Your task to perform on an android device: Open the web browser Image 0: 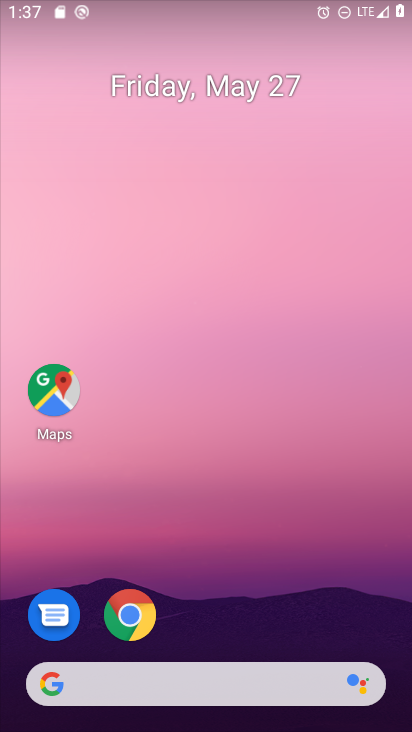
Step 0: drag from (200, 667) to (222, 23)
Your task to perform on an android device: Open the web browser Image 1: 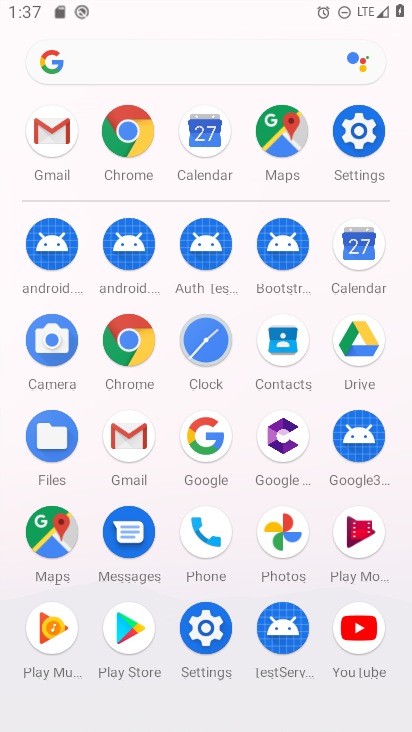
Step 1: click (140, 351)
Your task to perform on an android device: Open the web browser Image 2: 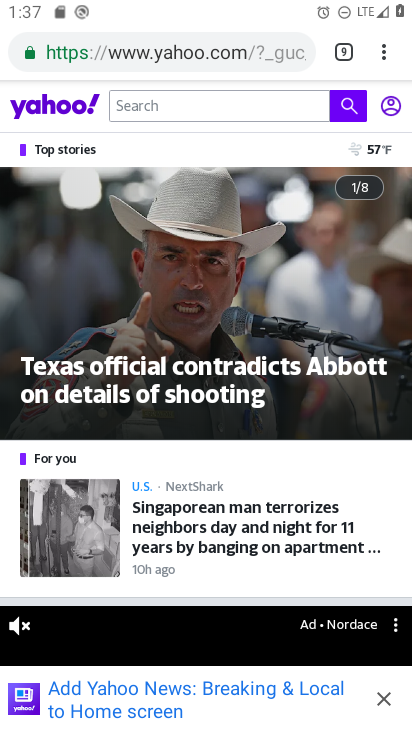
Step 2: click (379, 50)
Your task to perform on an android device: Open the web browser Image 3: 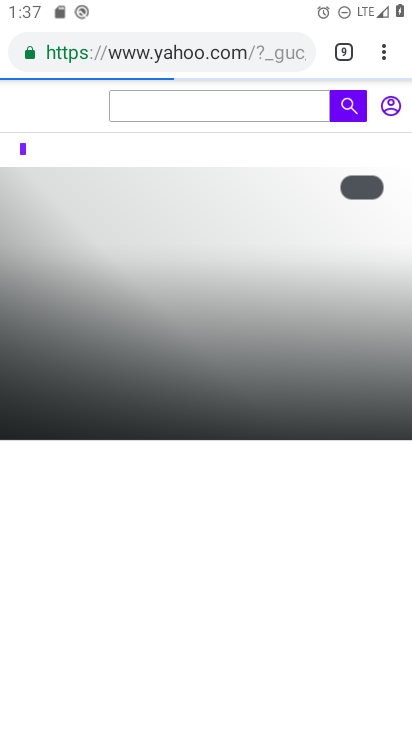
Step 3: task complete